Your task to perform on an android device: Search for seafood restaurants on Google Maps Image 0: 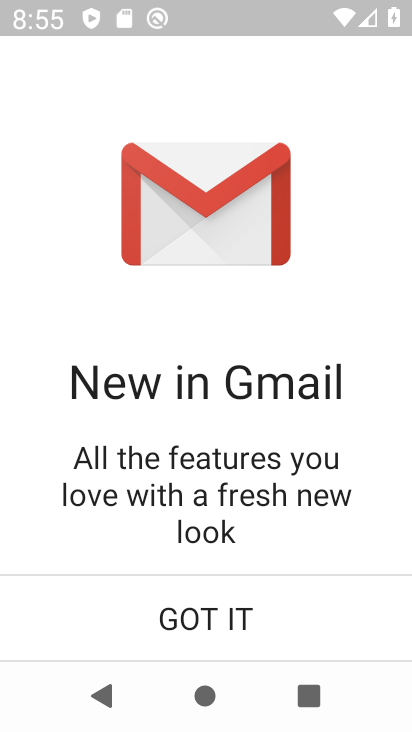
Step 0: press home button
Your task to perform on an android device: Search for seafood restaurants on Google Maps Image 1: 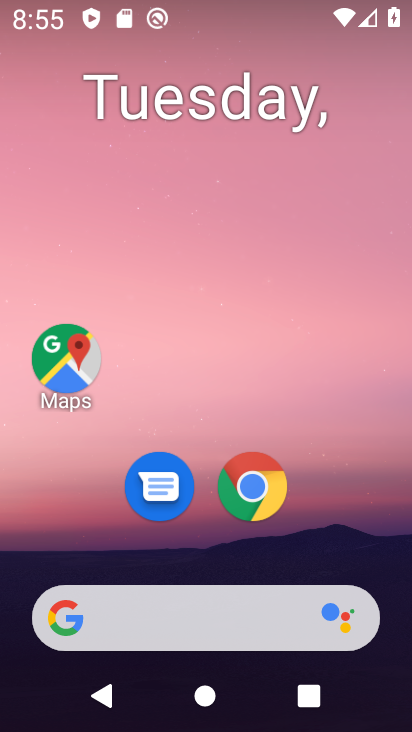
Step 1: drag from (367, 514) to (357, 144)
Your task to perform on an android device: Search for seafood restaurants on Google Maps Image 2: 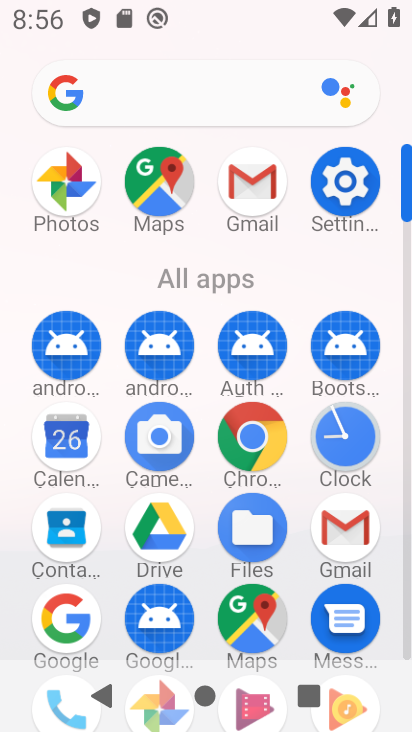
Step 2: click (170, 180)
Your task to perform on an android device: Search for seafood restaurants on Google Maps Image 3: 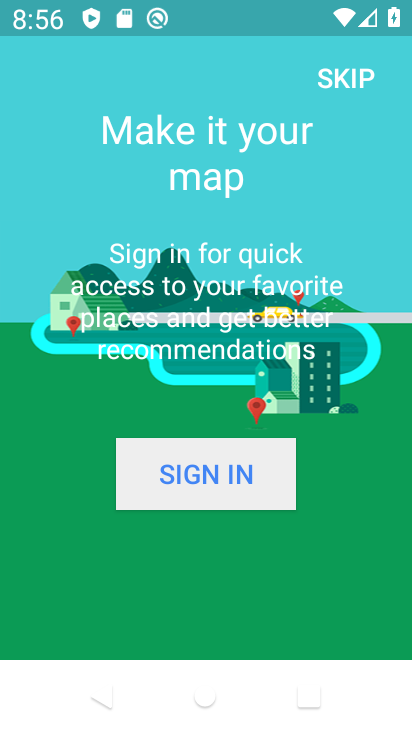
Step 3: click (330, 78)
Your task to perform on an android device: Search for seafood restaurants on Google Maps Image 4: 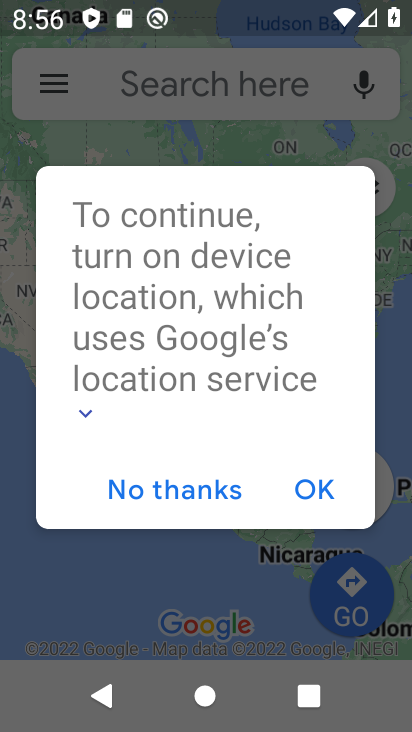
Step 4: click (171, 490)
Your task to perform on an android device: Search for seafood restaurants on Google Maps Image 5: 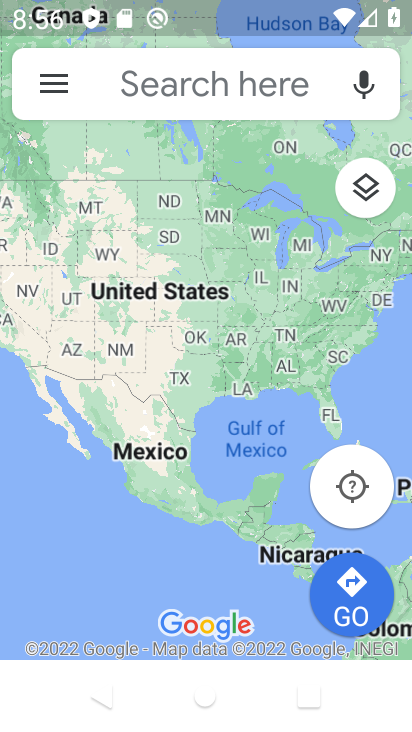
Step 5: click (215, 82)
Your task to perform on an android device: Search for seafood restaurants on Google Maps Image 6: 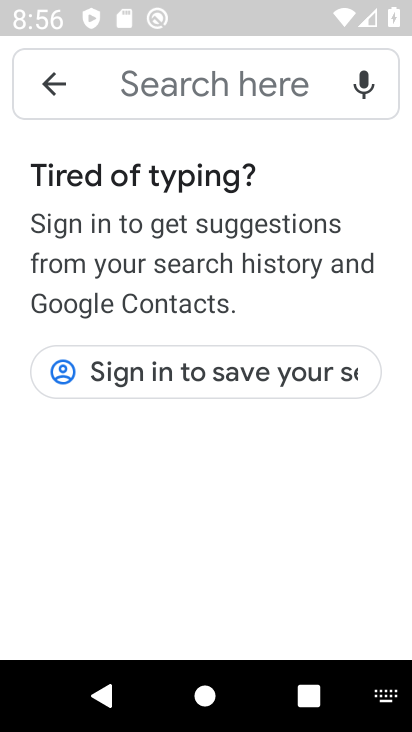
Step 6: type "seafood restaurants"
Your task to perform on an android device: Search for seafood restaurants on Google Maps Image 7: 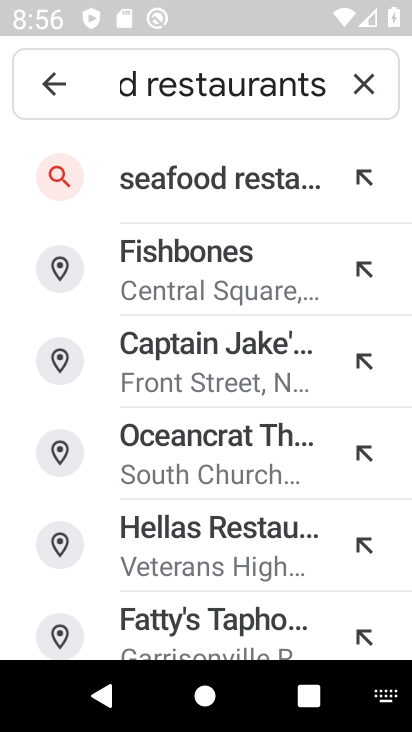
Step 7: click (269, 194)
Your task to perform on an android device: Search for seafood restaurants on Google Maps Image 8: 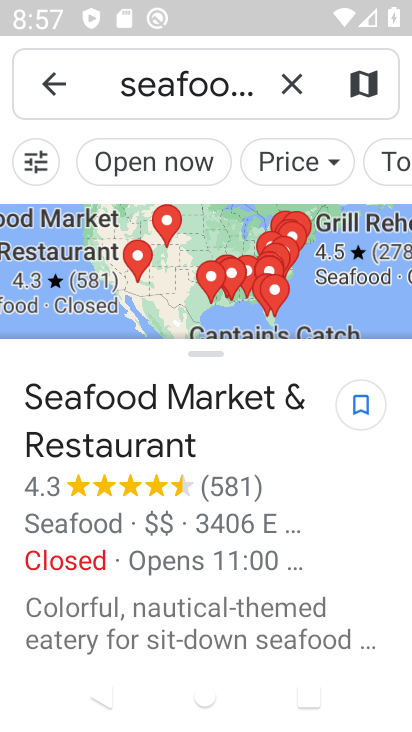
Step 8: task complete